Your task to perform on an android device: empty trash in the gmail app Image 0: 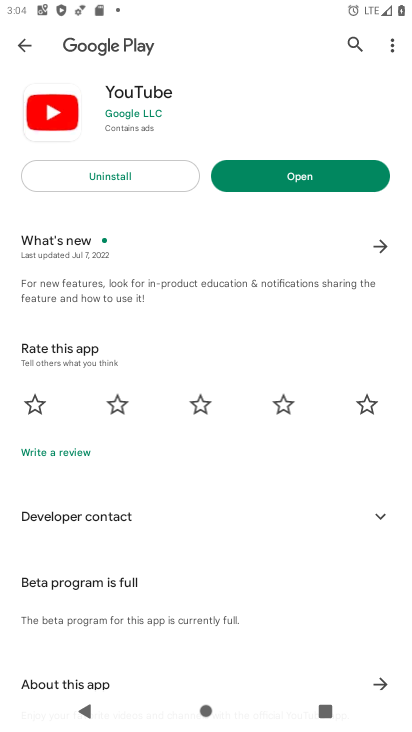
Step 0: press home button
Your task to perform on an android device: empty trash in the gmail app Image 1: 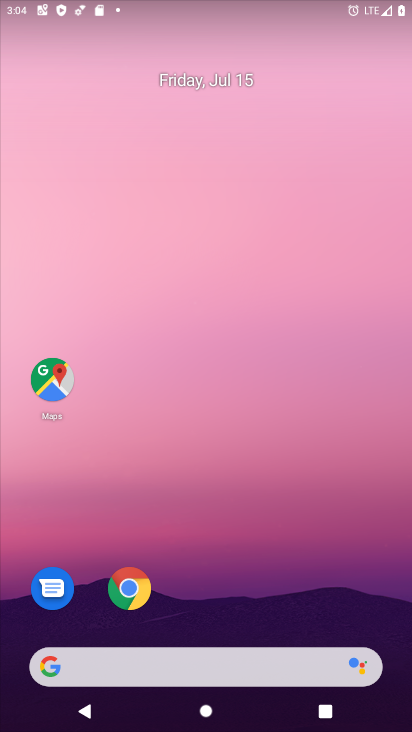
Step 1: drag from (221, 667) to (407, 167)
Your task to perform on an android device: empty trash in the gmail app Image 2: 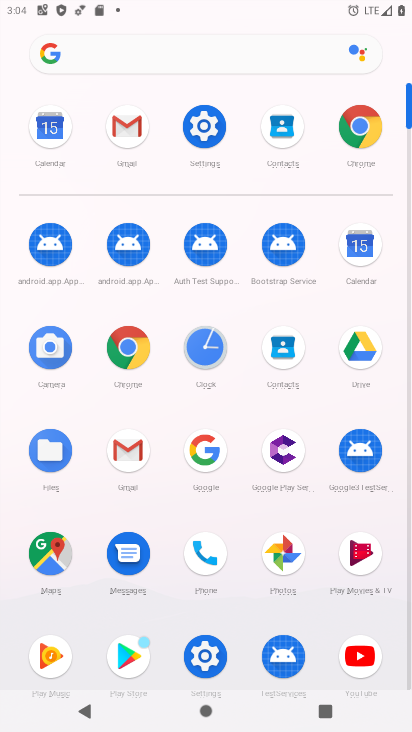
Step 2: click (127, 124)
Your task to perform on an android device: empty trash in the gmail app Image 3: 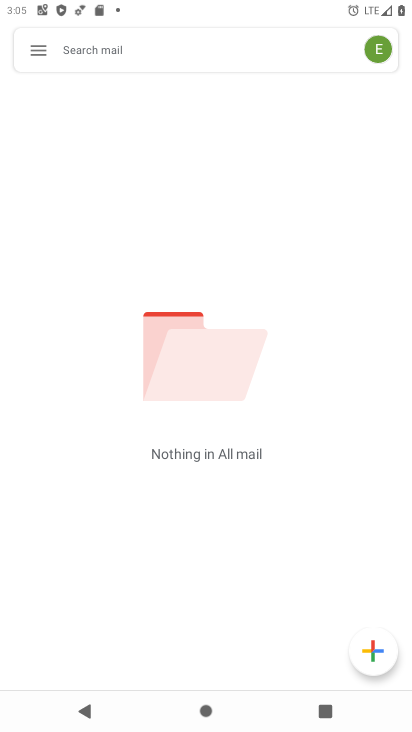
Step 3: click (39, 50)
Your task to perform on an android device: empty trash in the gmail app Image 4: 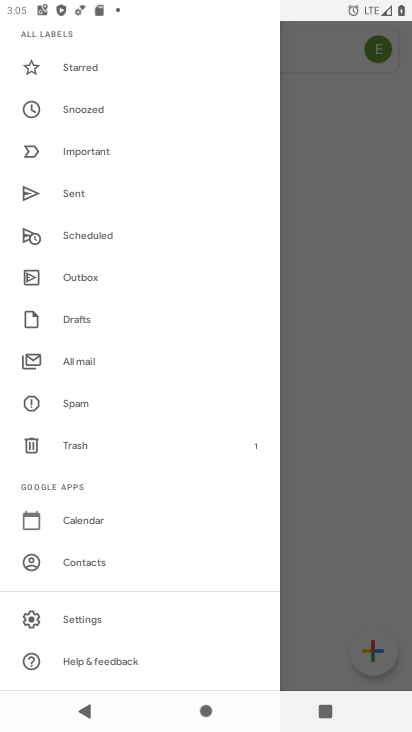
Step 4: click (85, 441)
Your task to perform on an android device: empty trash in the gmail app Image 5: 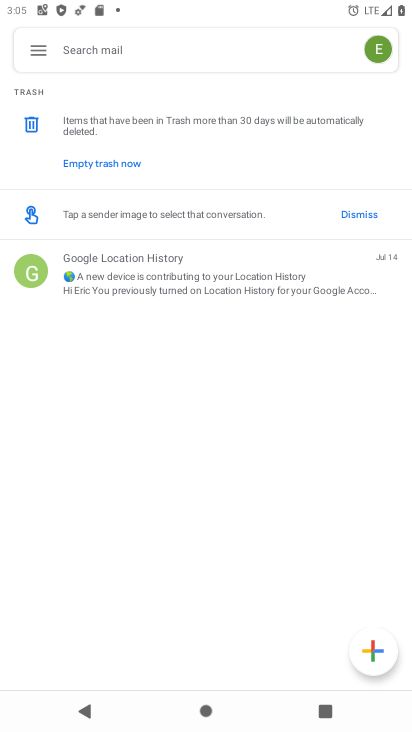
Step 5: click (101, 167)
Your task to perform on an android device: empty trash in the gmail app Image 6: 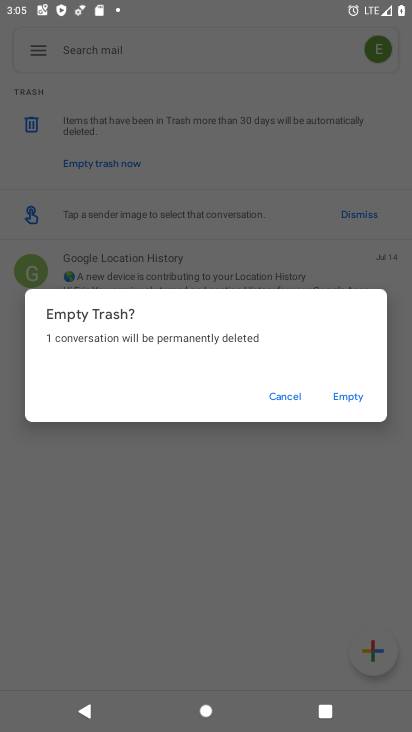
Step 6: click (341, 397)
Your task to perform on an android device: empty trash in the gmail app Image 7: 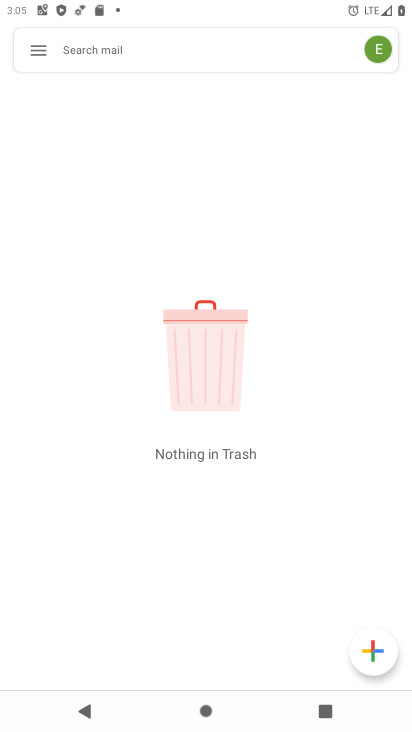
Step 7: task complete